Your task to perform on an android device: Open location settings Image 0: 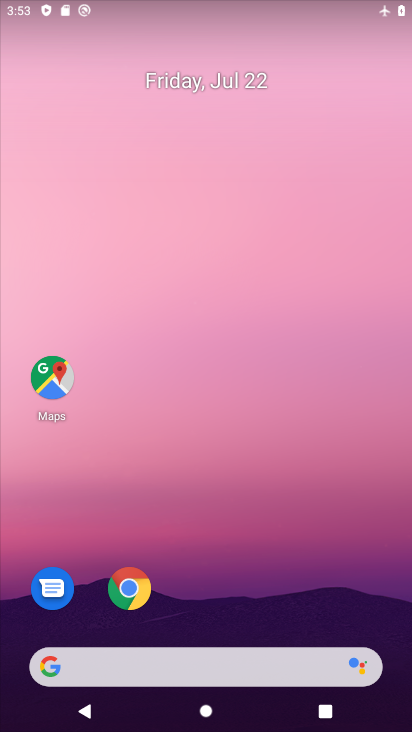
Step 0: drag from (306, 630) to (257, 100)
Your task to perform on an android device: Open location settings Image 1: 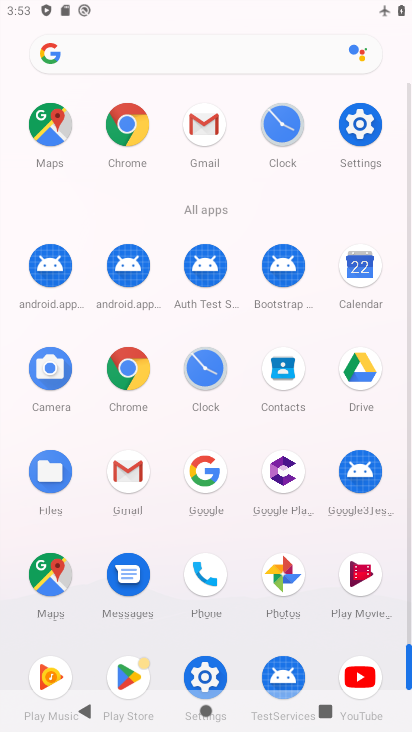
Step 1: click (362, 109)
Your task to perform on an android device: Open location settings Image 2: 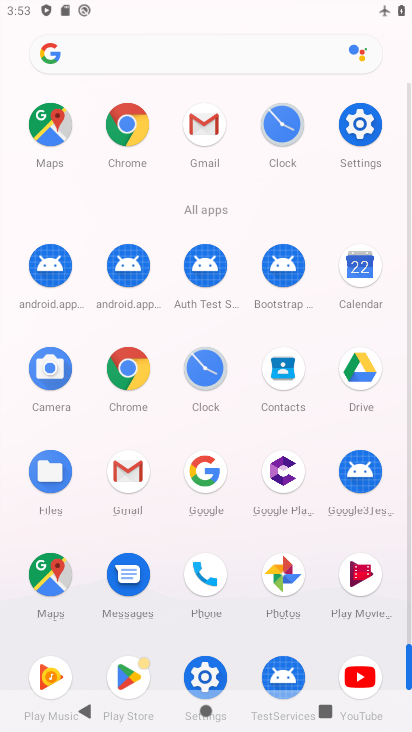
Step 2: click (365, 133)
Your task to perform on an android device: Open location settings Image 3: 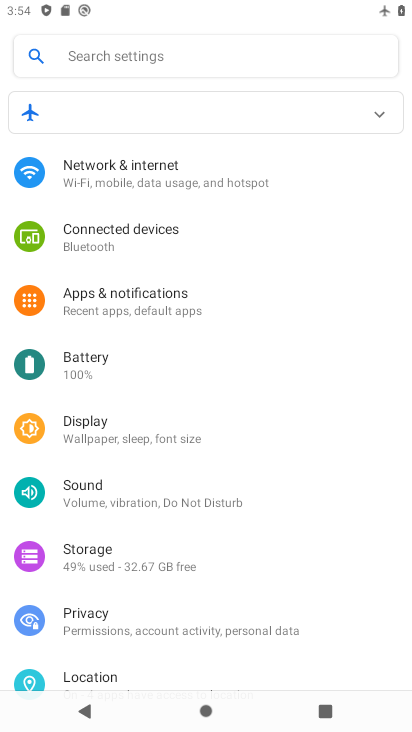
Step 3: click (165, 674)
Your task to perform on an android device: Open location settings Image 4: 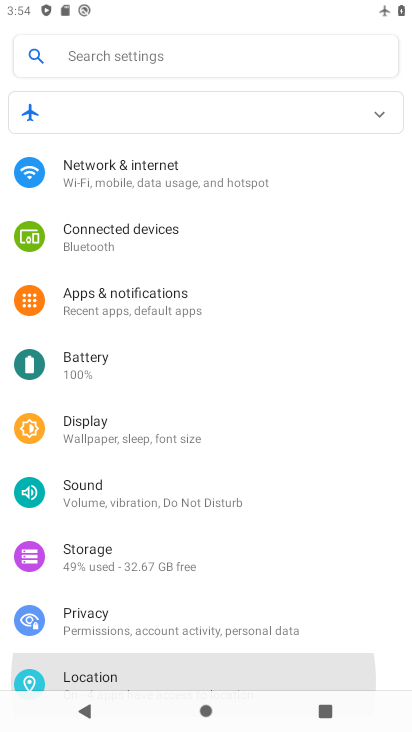
Step 4: click (165, 674)
Your task to perform on an android device: Open location settings Image 5: 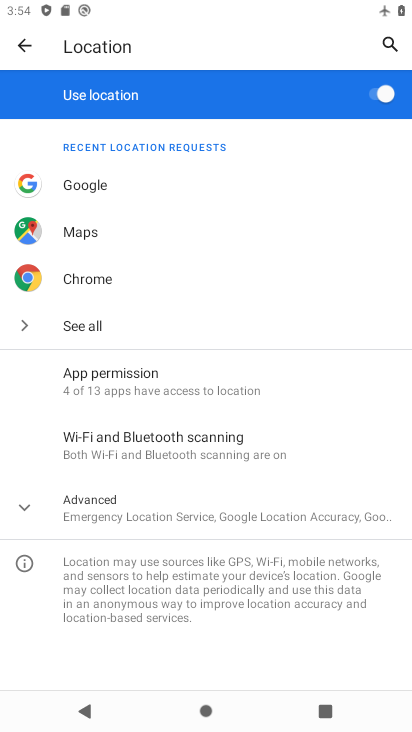
Step 5: task complete